Your task to perform on an android device: Do I have any events this weekend? Image 0: 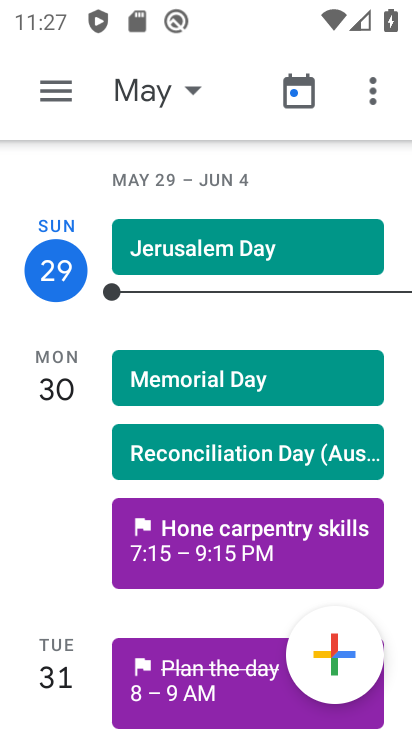
Step 0: press back button
Your task to perform on an android device: Do I have any events this weekend? Image 1: 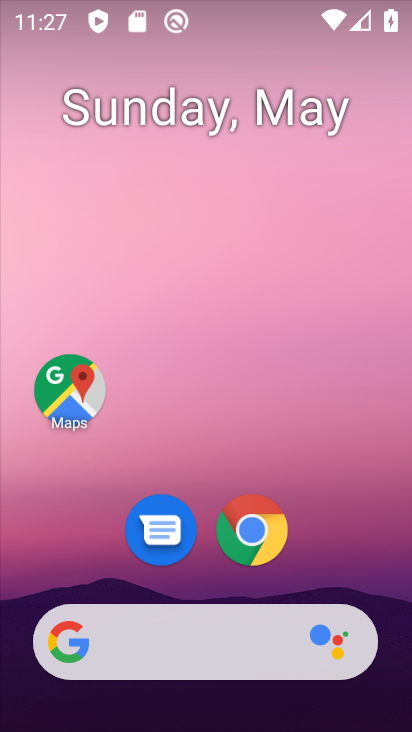
Step 1: drag from (197, 592) to (213, 89)
Your task to perform on an android device: Do I have any events this weekend? Image 2: 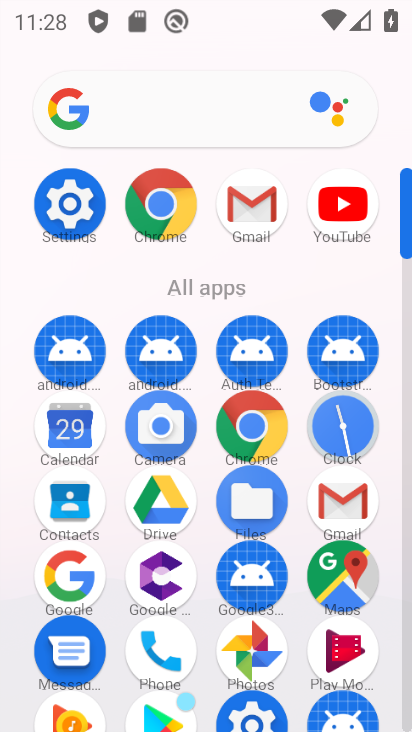
Step 2: drag from (173, 649) to (228, 329)
Your task to perform on an android device: Do I have any events this weekend? Image 3: 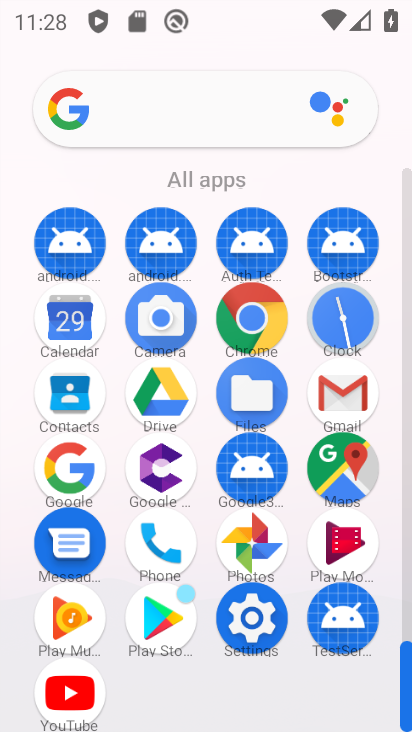
Step 3: click (60, 298)
Your task to perform on an android device: Do I have any events this weekend? Image 4: 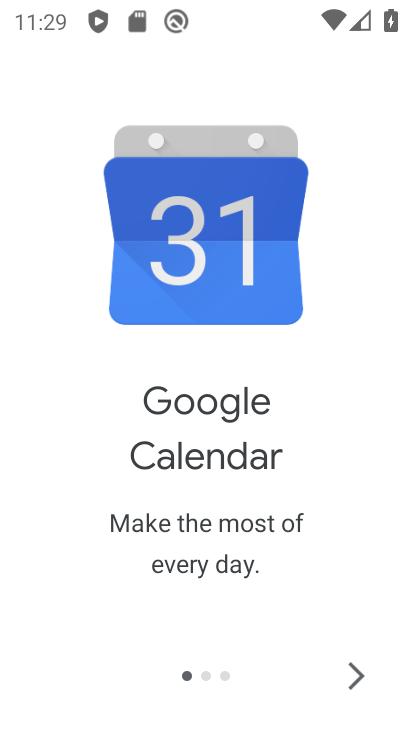
Step 4: click (374, 656)
Your task to perform on an android device: Do I have any events this weekend? Image 5: 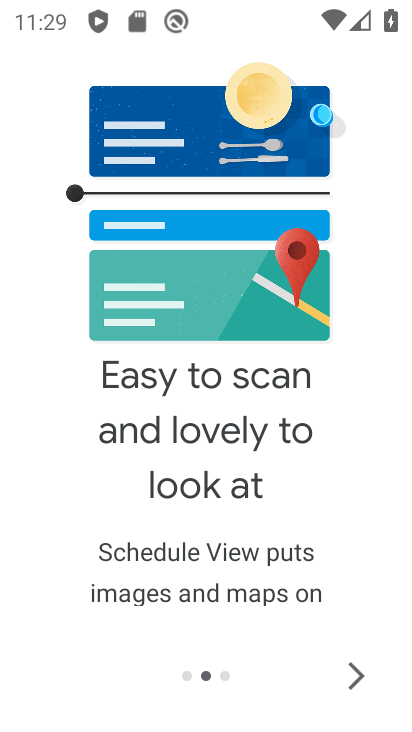
Step 5: click (353, 680)
Your task to perform on an android device: Do I have any events this weekend? Image 6: 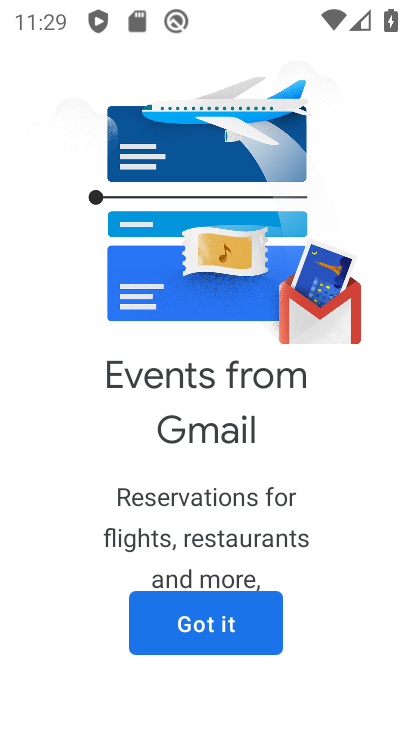
Step 6: click (220, 619)
Your task to perform on an android device: Do I have any events this weekend? Image 7: 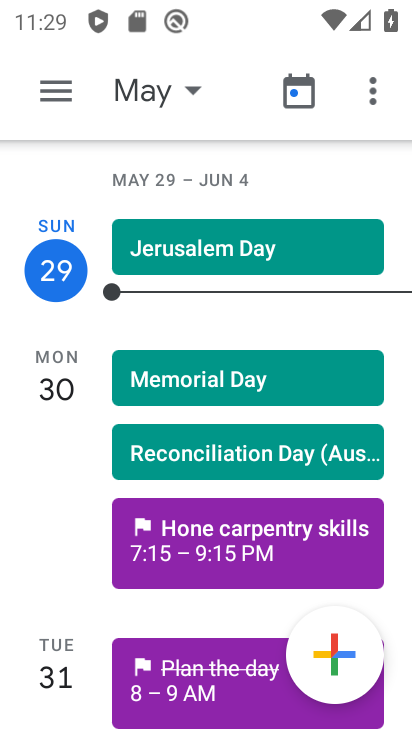
Step 7: drag from (185, 675) to (284, 126)
Your task to perform on an android device: Do I have any events this weekend? Image 8: 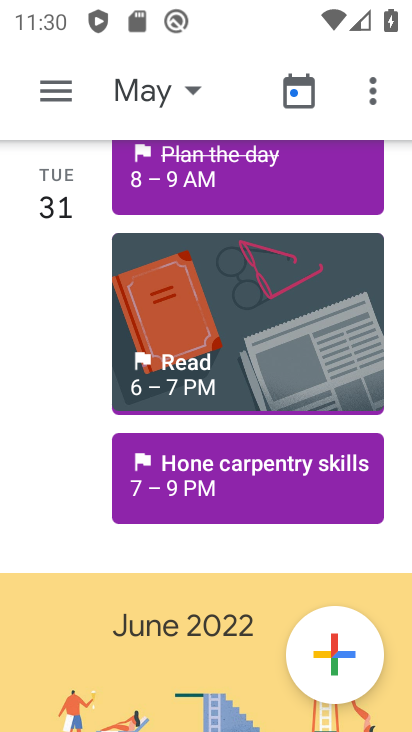
Step 8: drag from (230, 652) to (272, 116)
Your task to perform on an android device: Do I have any events this weekend? Image 9: 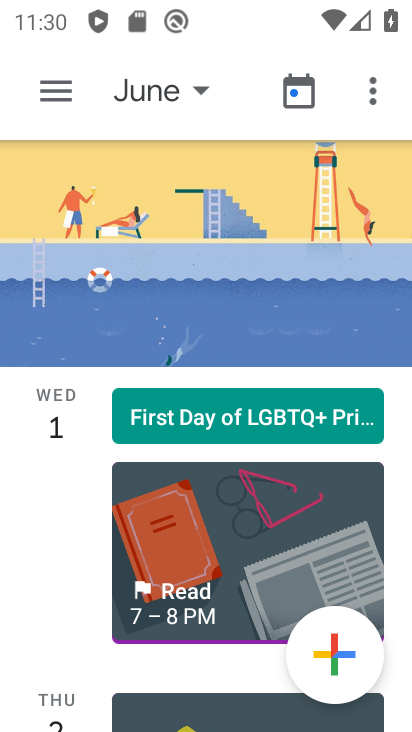
Step 9: drag from (176, 552) to (283, 68)
Your task to perform on an android device: Do I have any events this weekend? Image 10: 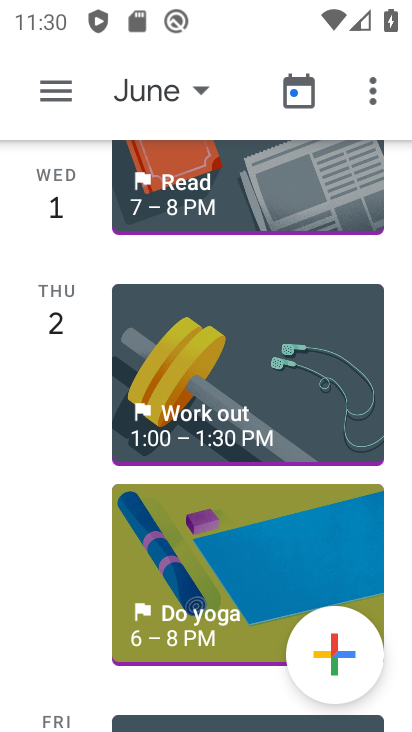
Step 10: drag from (218, 638) to (290, 120)
Your task to perform on an android device: Do I have any events this weekend? Image 11: 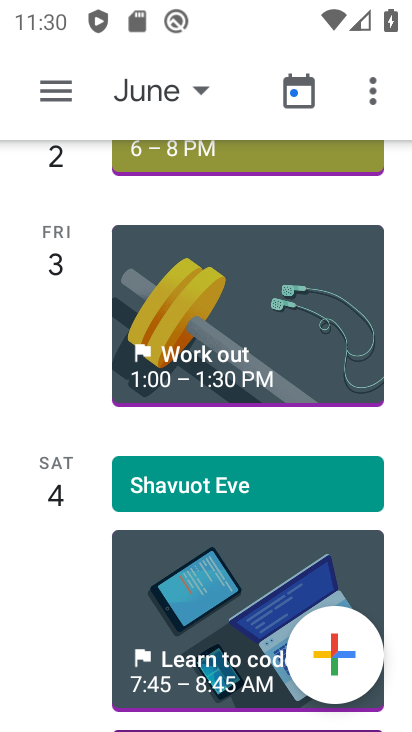
Step 11: click (195, 492)
Your task to perform on an android device: Do I have any events this weekend? Image 12: 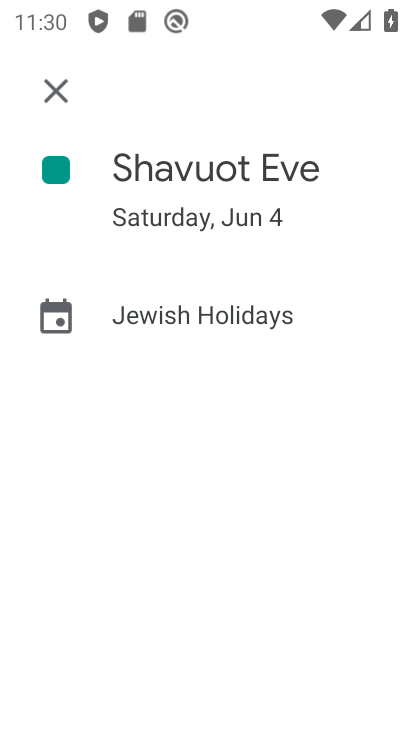
Step 12: task complete